Your task to perform on an android device: open app "YouTube Kids" (install if not already installed) Image 0: 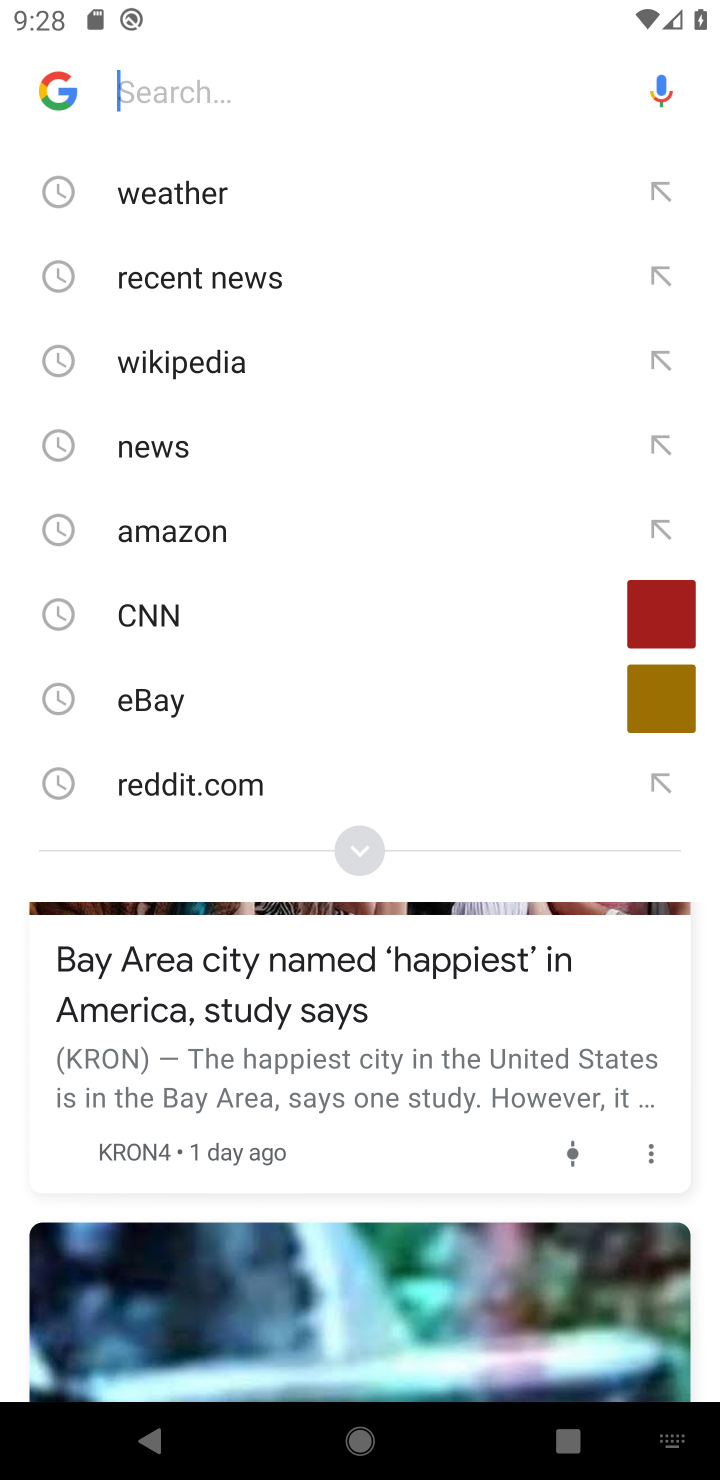
Step 0: click (570, 87)
Your task to perform on an android device: open app "YouTube Kids" (install if not already installed) Image 1: 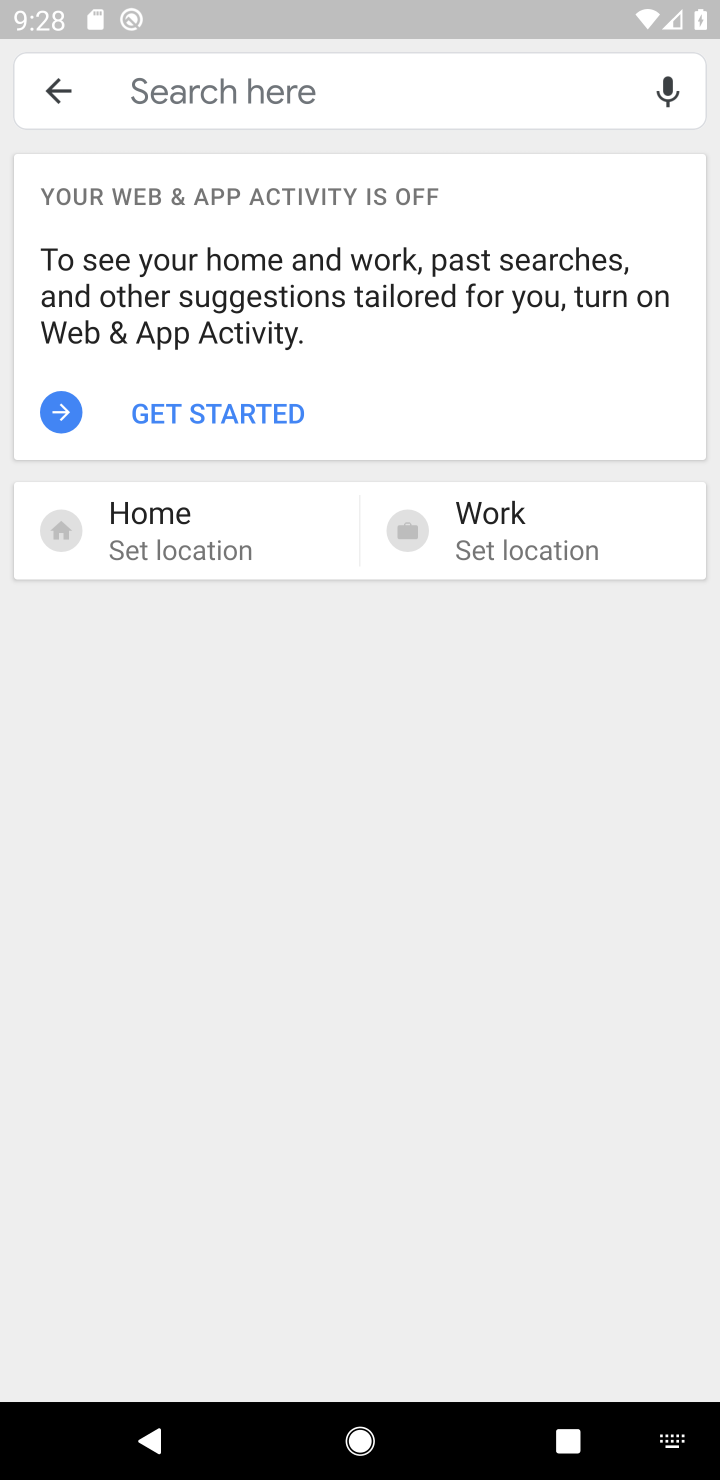
Step 1: click (197, 85)
Your task to perform on an android device: open app "YouTube Kids" (install if not already installed) Image 2: 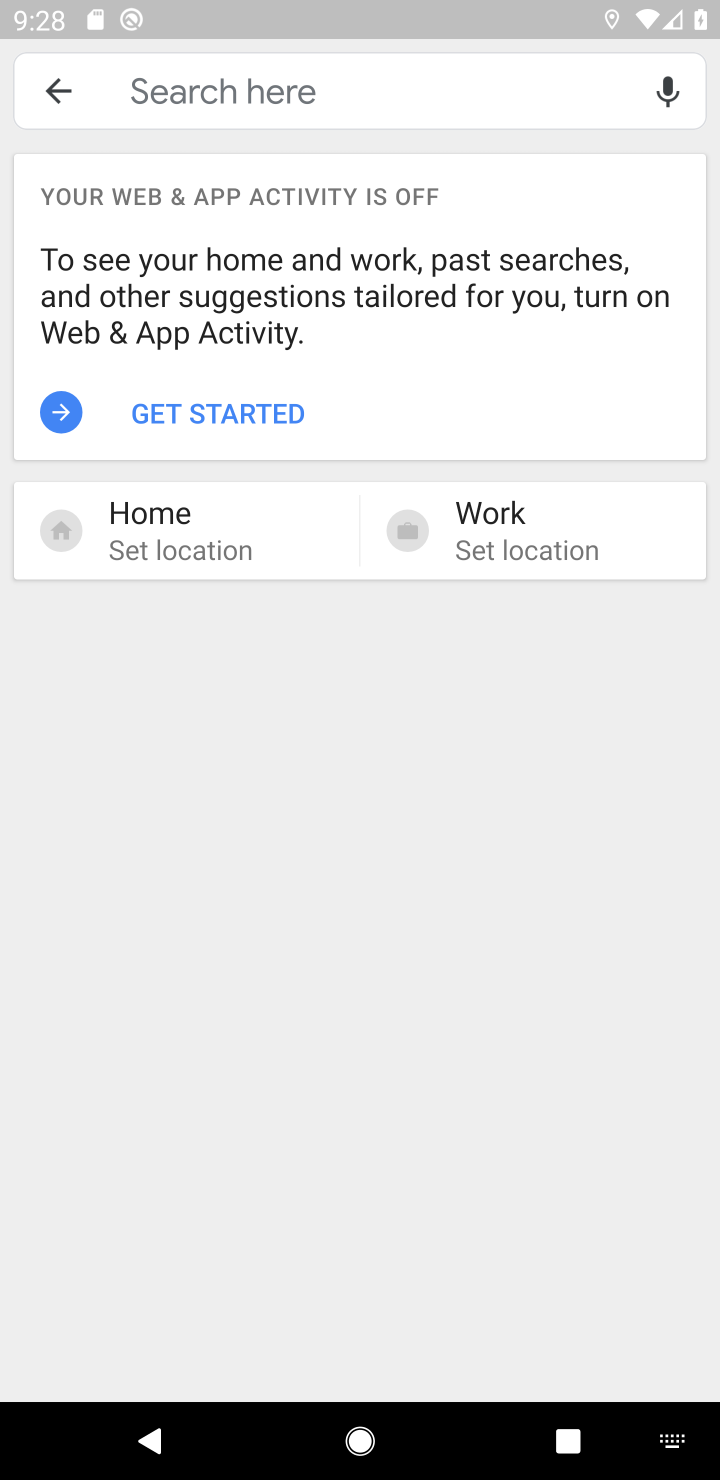
Step 2: press home button
Your task to perform on an android device: open app "YouTube Kids" (install if not already installed) Image 3: 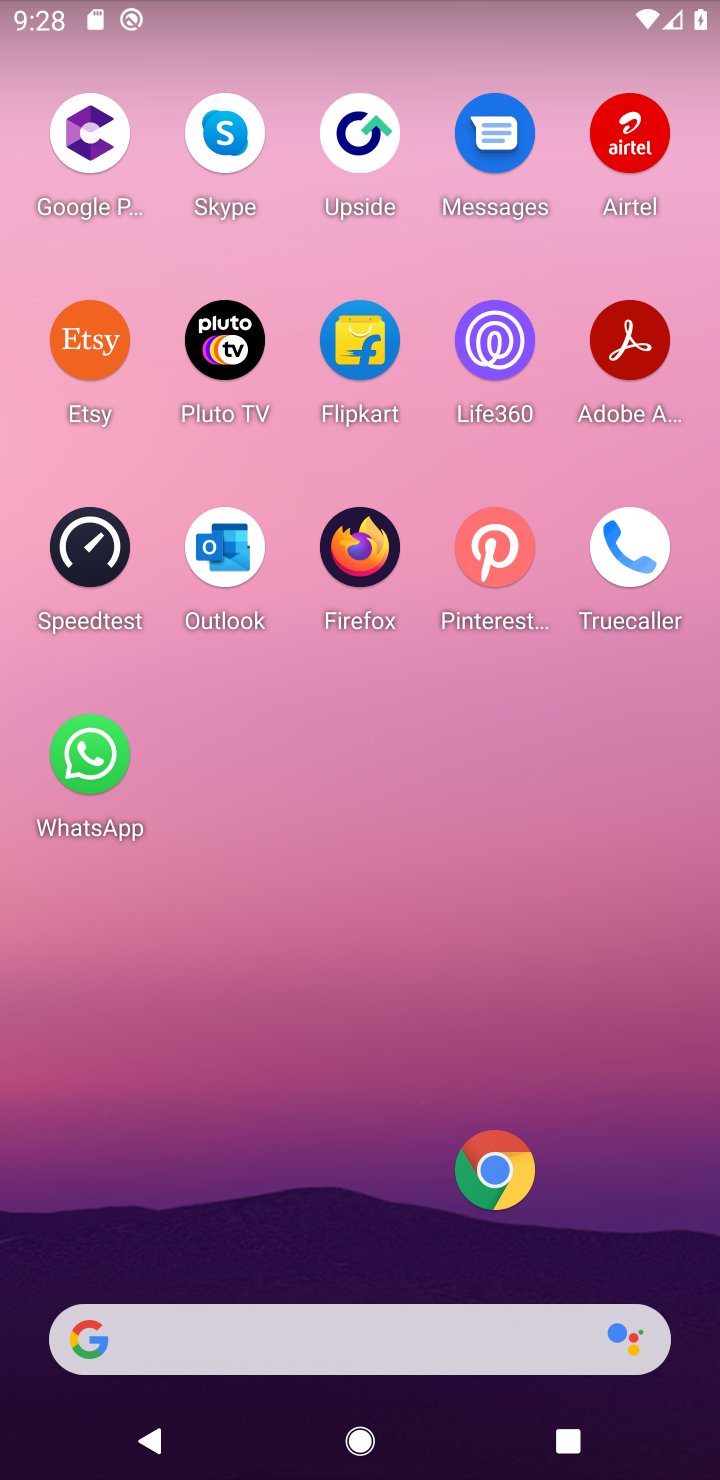
Step 3: drag from (301, 1099) to (453, 91)
Your task to perform on an android device: open app "YouTube Kids" (install if not already installed) Image 4: 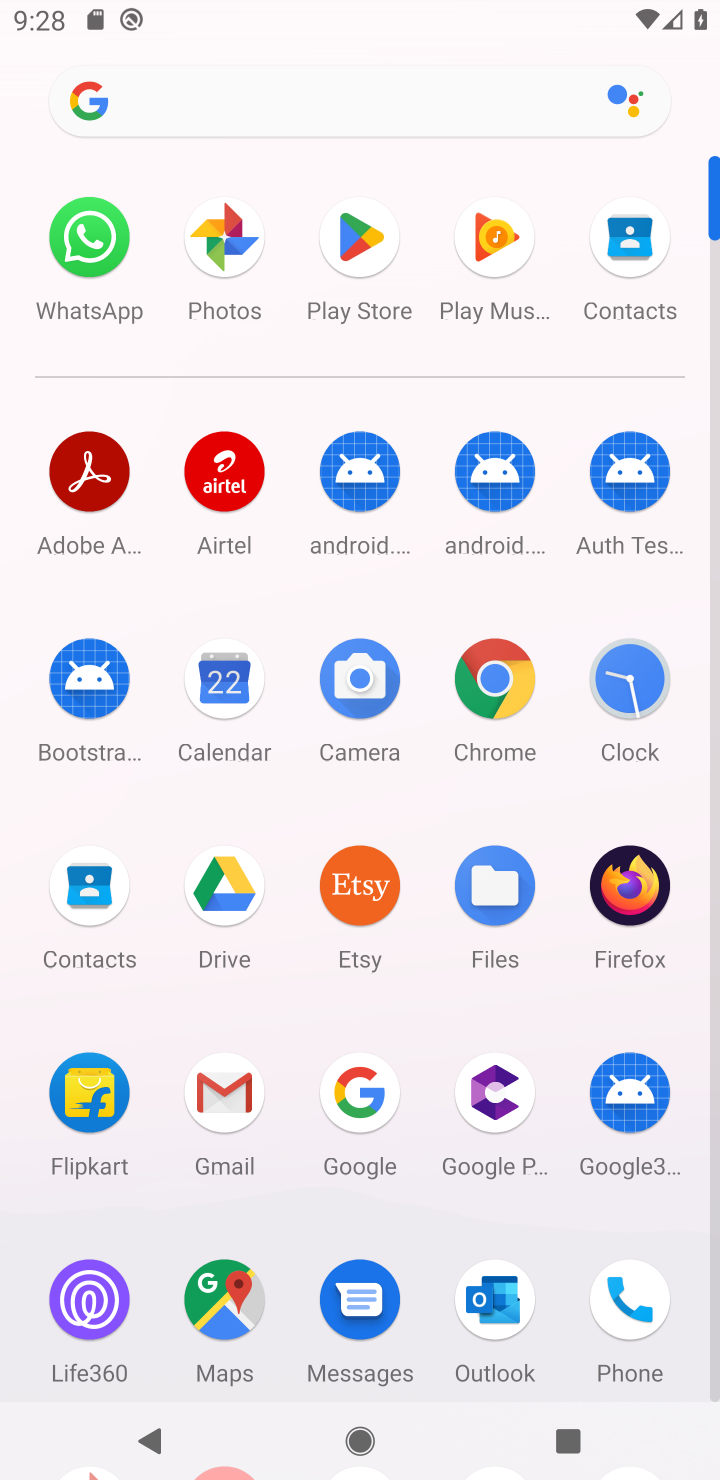
Step 4: click (374, 232)
Your task to perform on an android device: open app "YouTube Kids" (install if not already installed) Image 5: 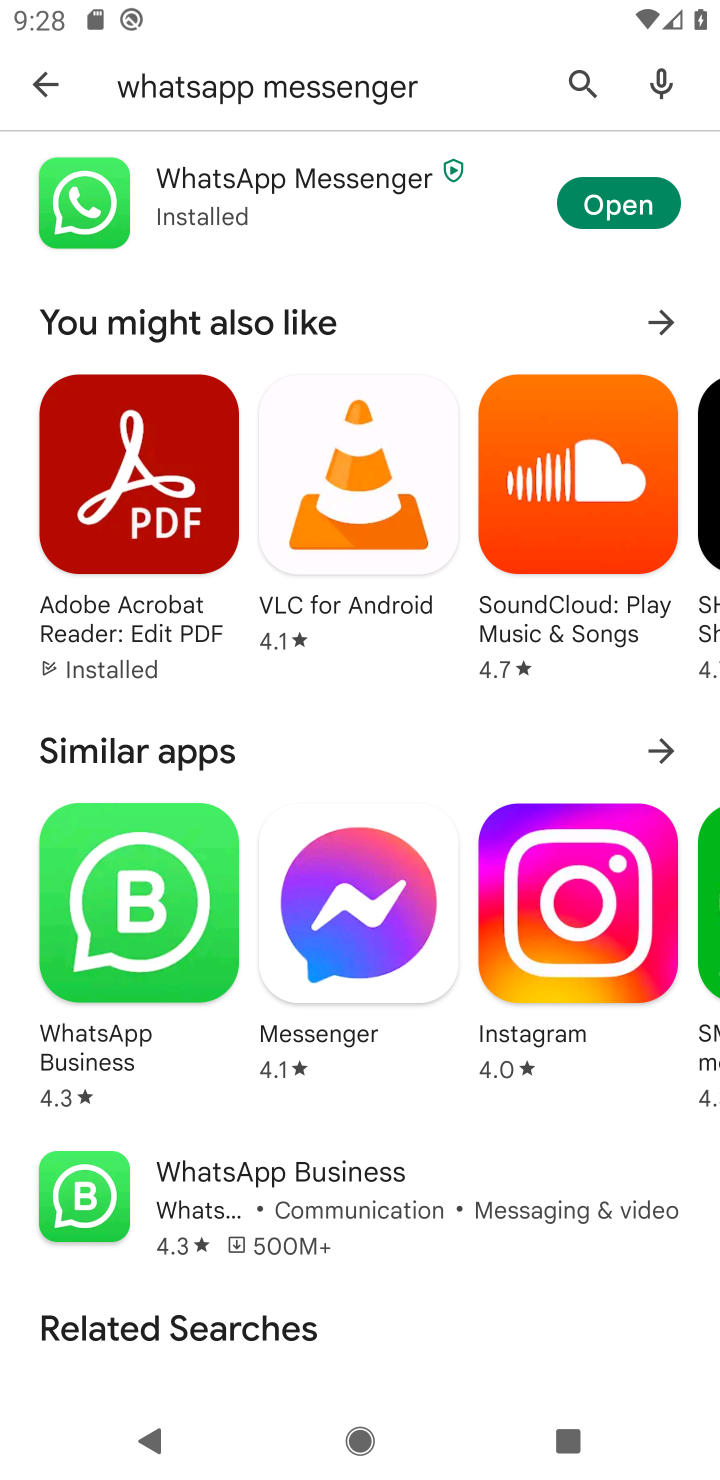
Step 5: click (593, 72)
Your task to perform on an android device: open app "YouTube Kids" (install if not already installed) Image 6: 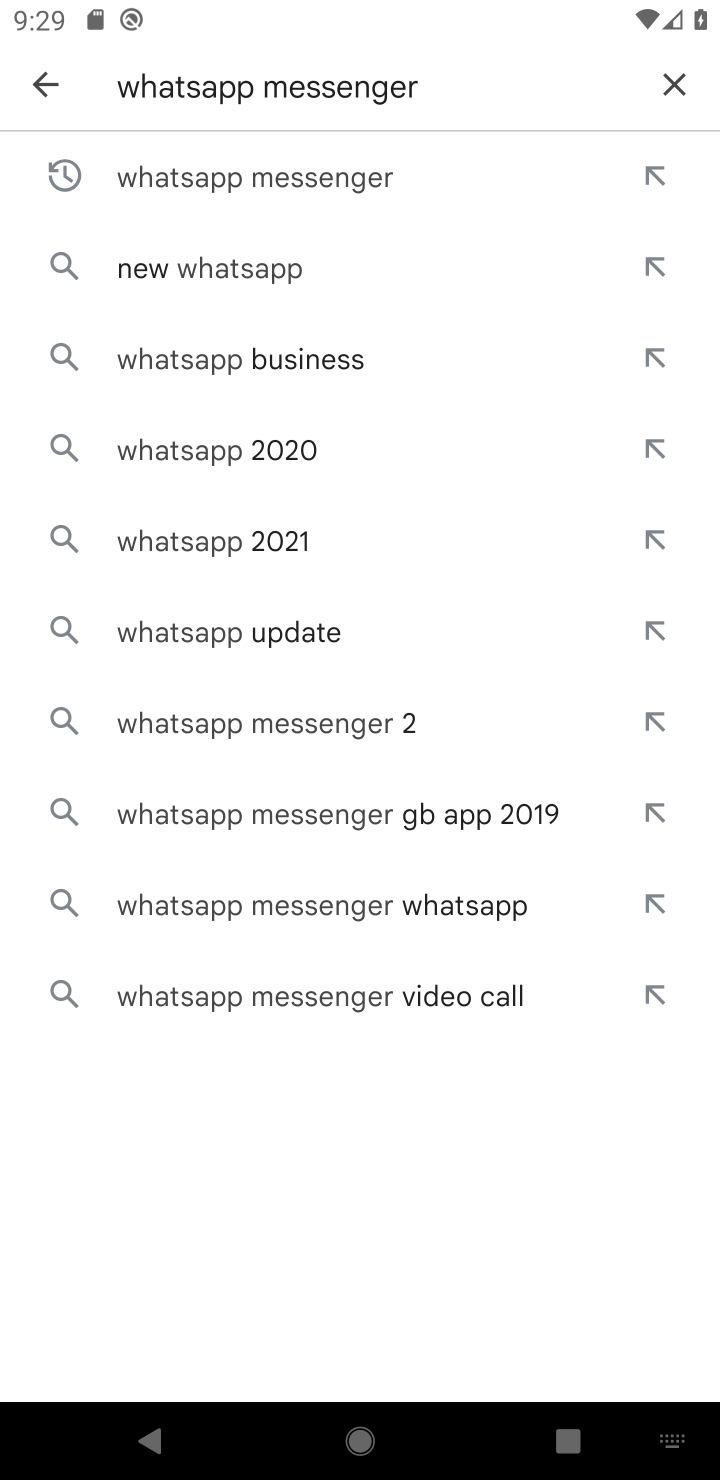
Step 6: click (675, 89)
Your task to perform on an android device: open app "YouTube Kids" (install if not already installed) Image 7: 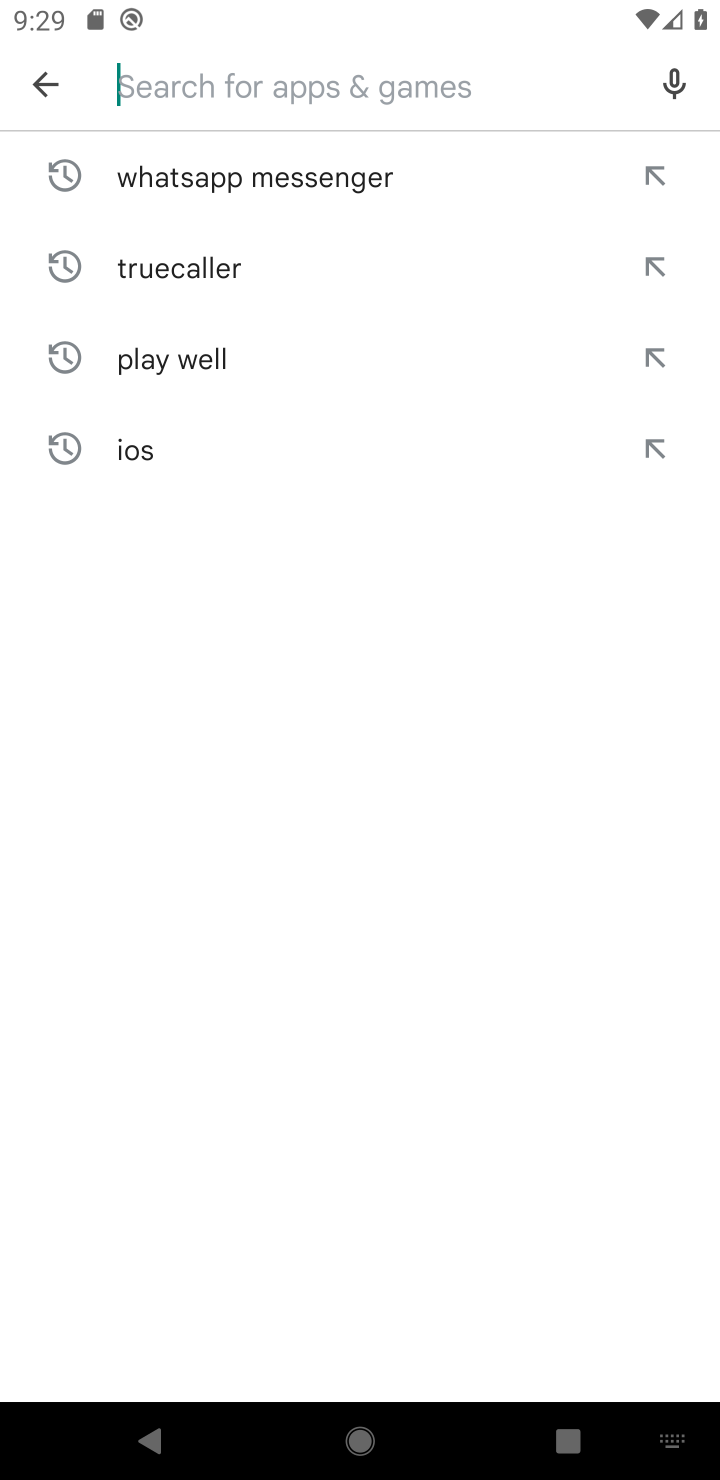
Step 7: click (254, 71)
Your task to perform on an android device: open app "YouTube Kids" (install if not already installed) Image 8: 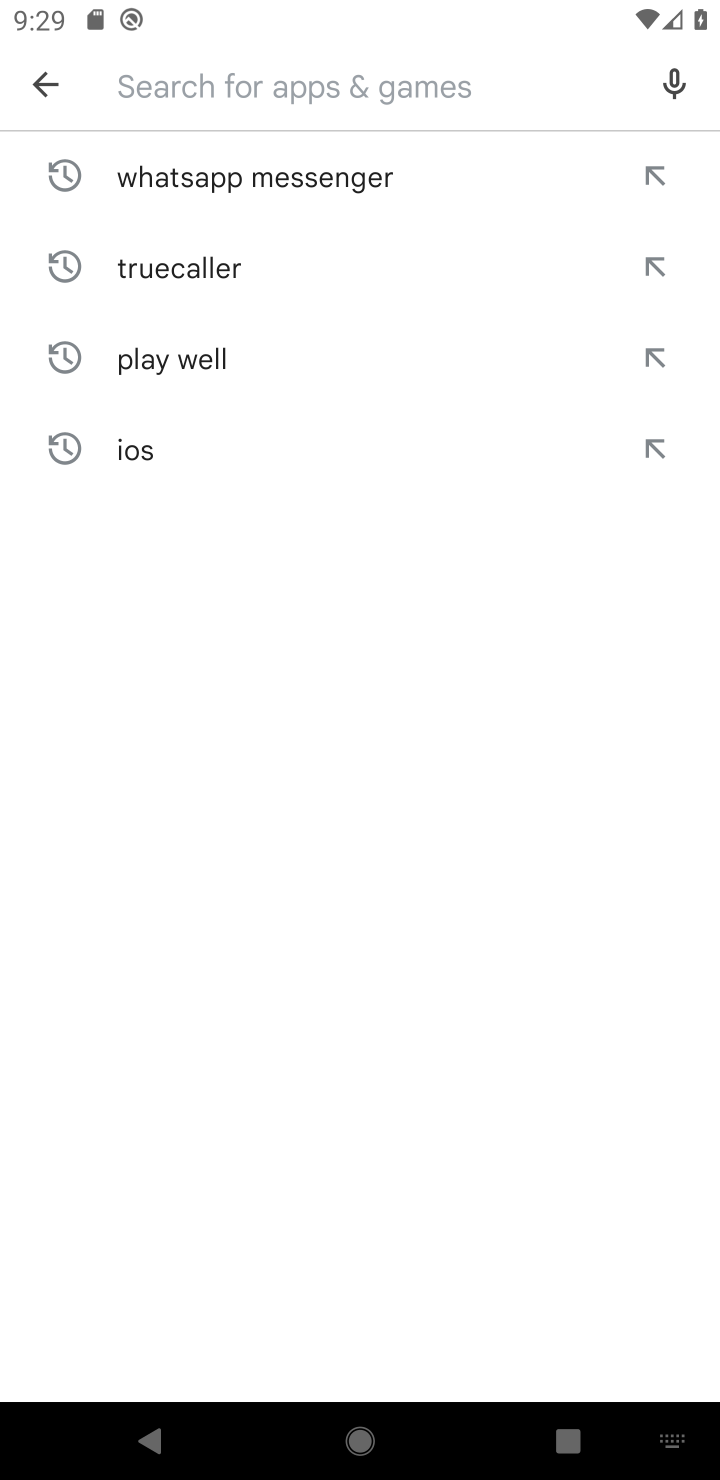
Step 8: click (331, 85)
Your task to perform on an android device: open app "YouTube Kids" (install if not already installed) Image 9: 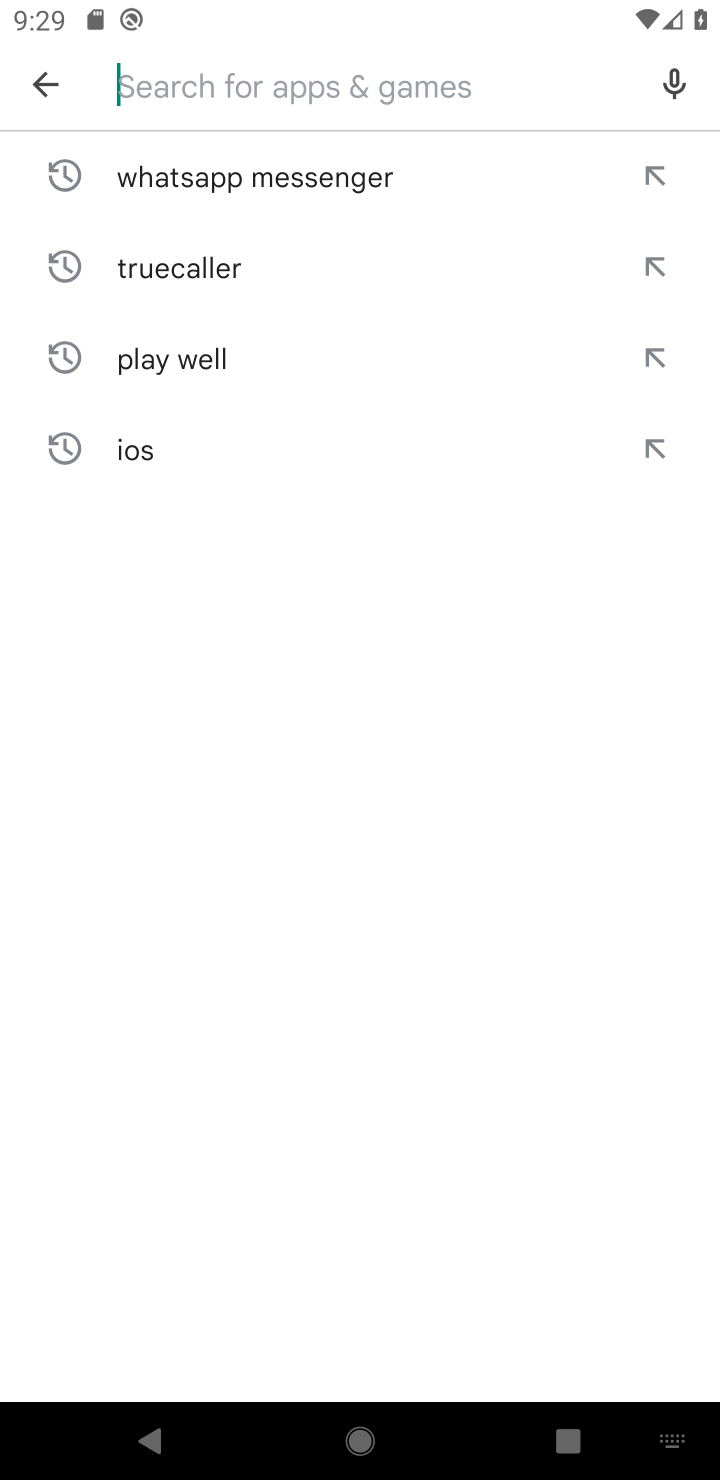
Step 9: type "YouTube Kid"
Your task to perform on an android device: open app "YouTube Kids" (install if not already installed) Image 10: 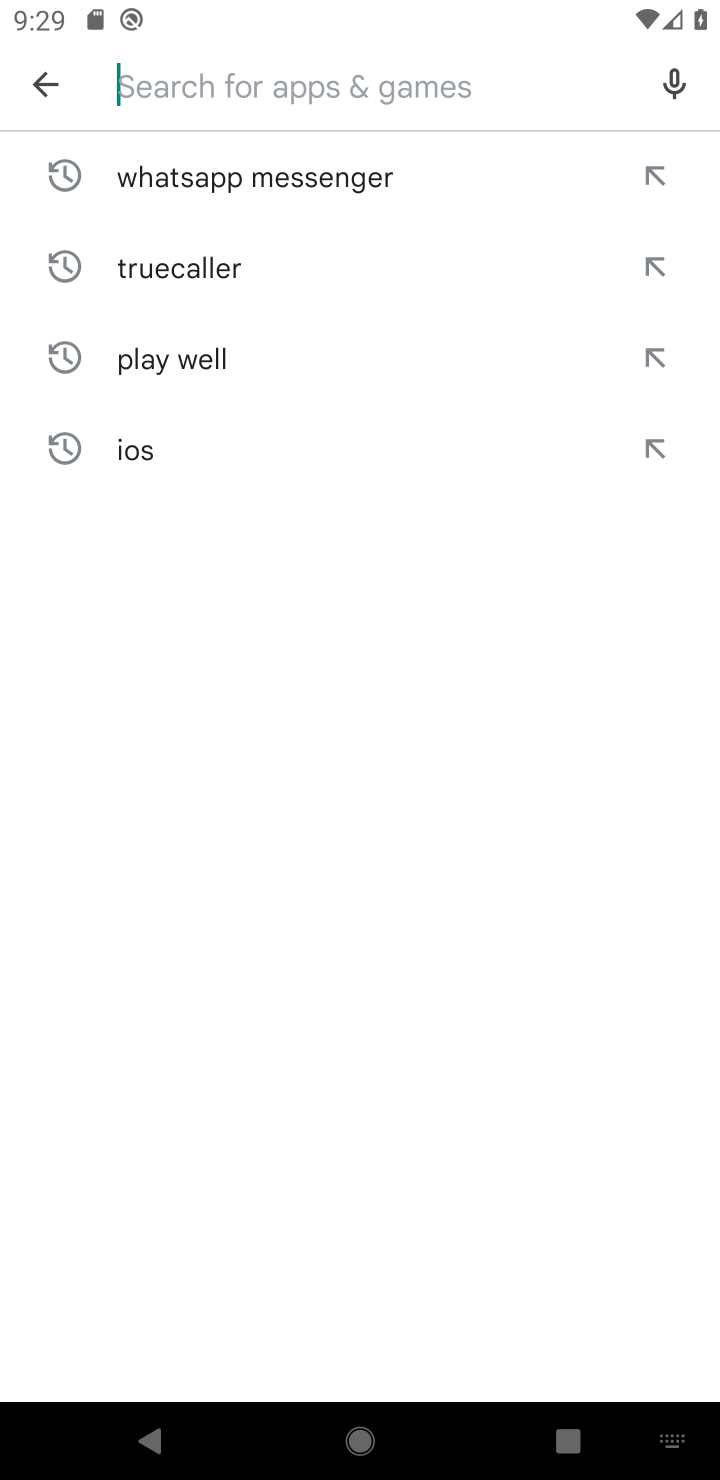
Step 10: click (519, 967)
Your task to perform on an android device: open app "YouTube Kids" (install if not already installed) Image 11: 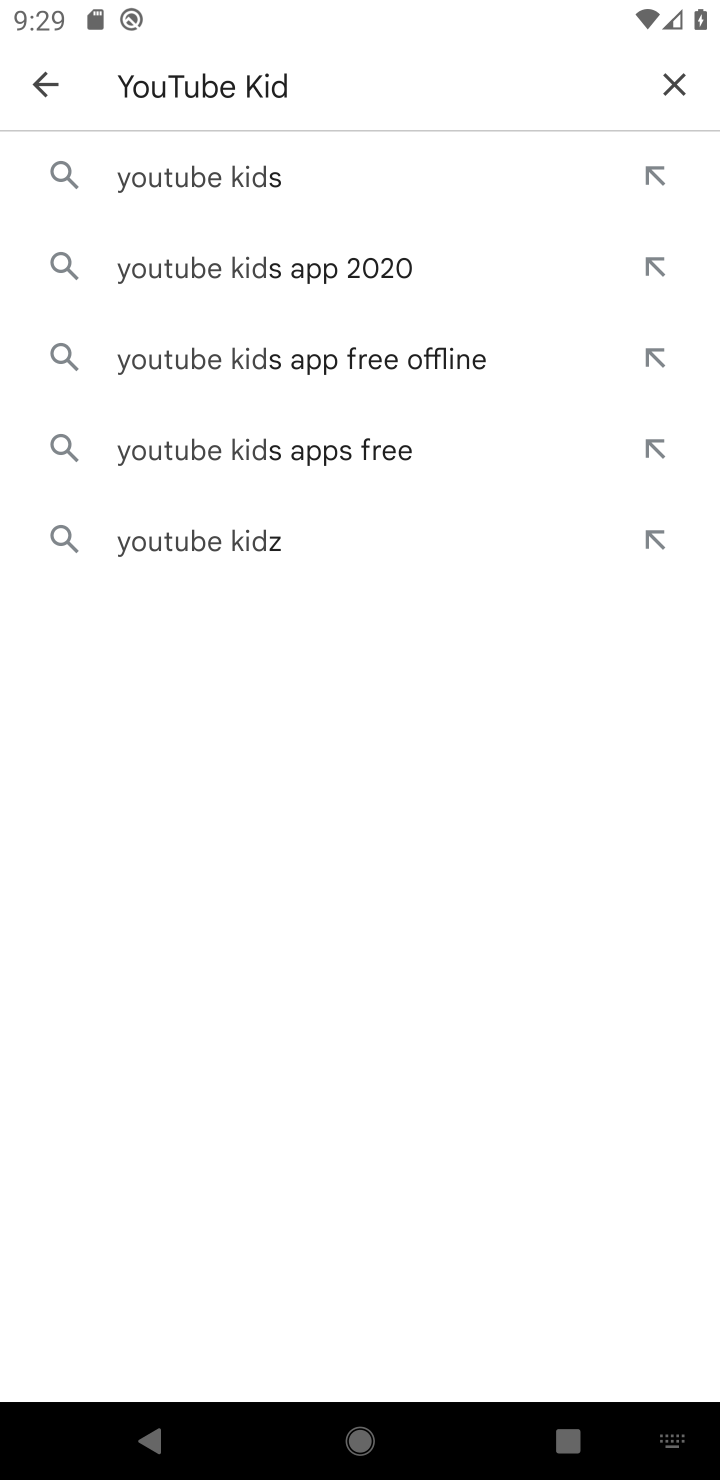
Step 11: click (205, 163)
Your task to perform on an android device: open app "YouTube Kids" (install if not already installed) Image 12: 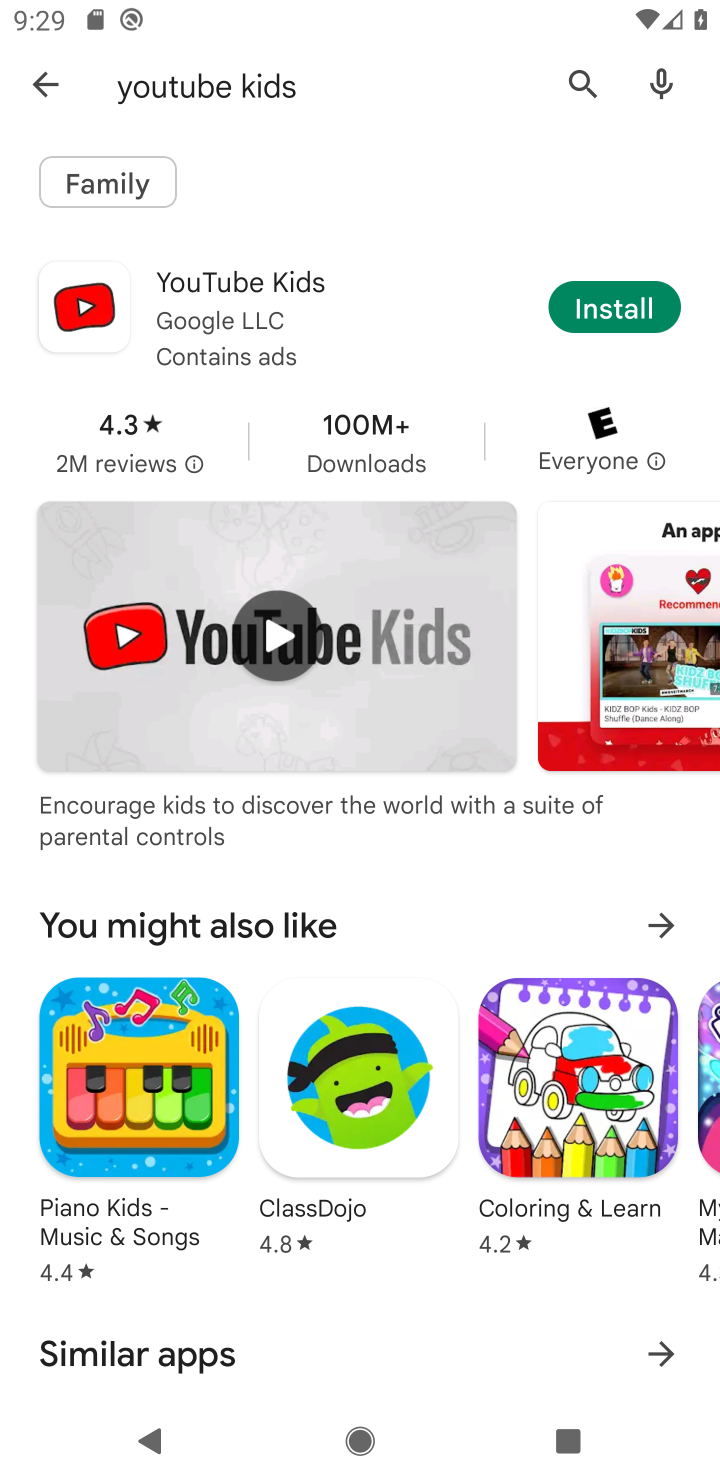
Step 12: click (602, 308)
Your task to perform on an android device: open app "YouTube Kids" (install if not already installed) Image 13: 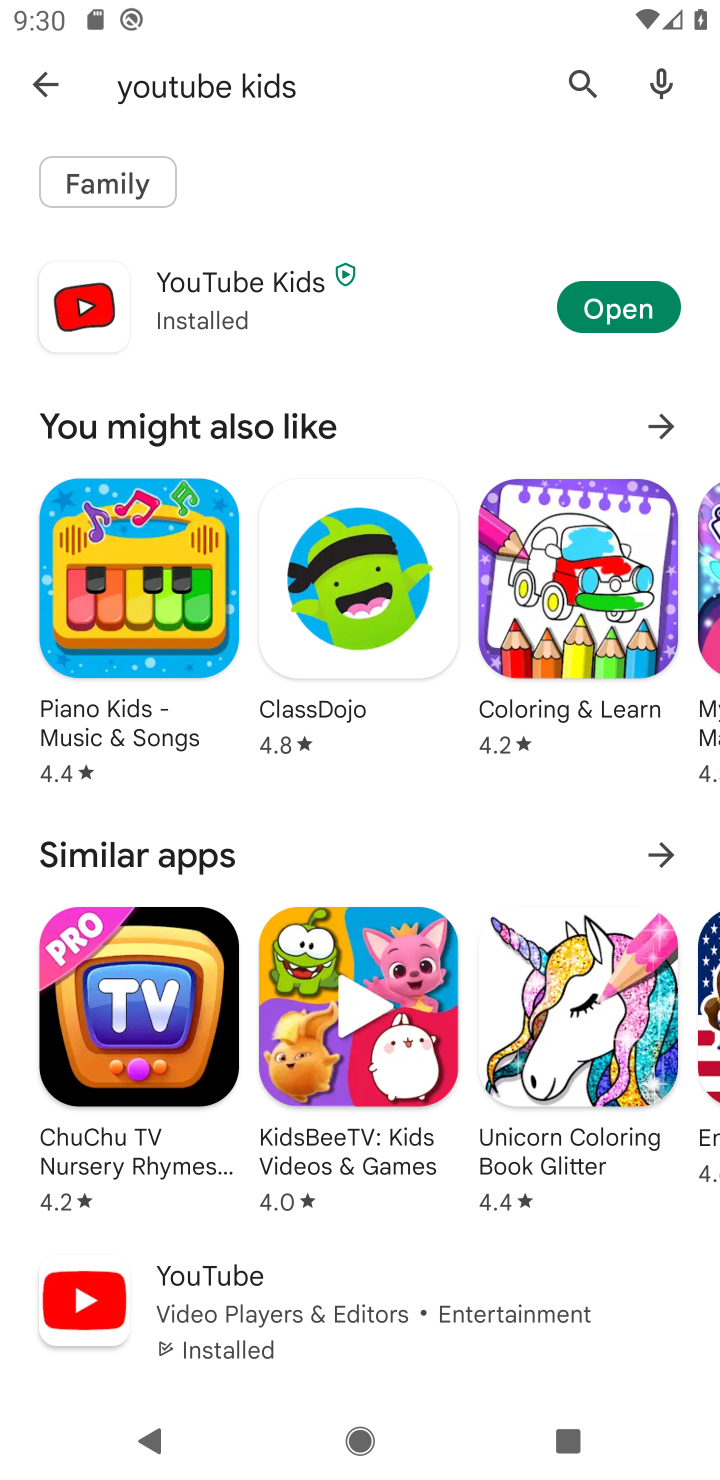
Step 13: click (631, 314)
Your task to perform on an android device: open app "YouTube Kids" (install if not already installed) Image 14: 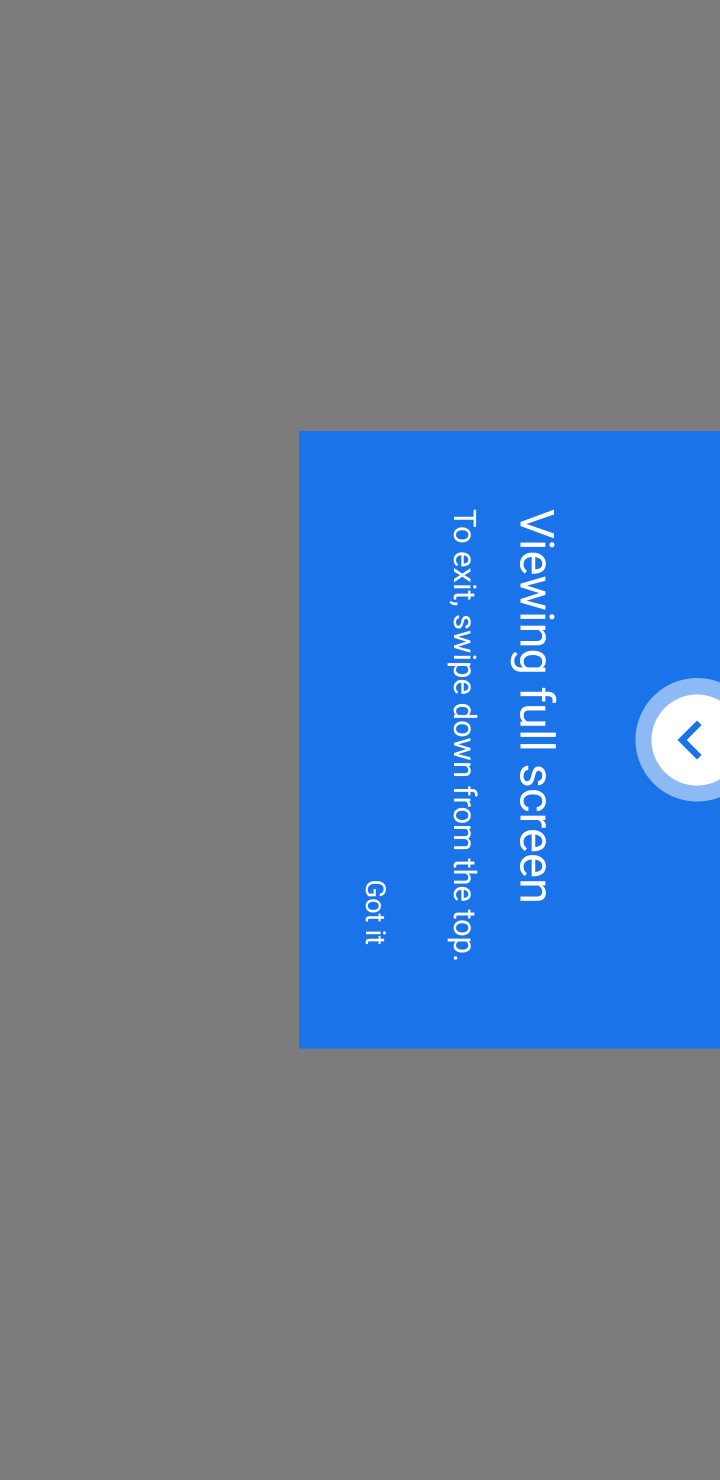
Step 14: task complete